Your task to perform on an android device: Add "duracell triple a" to the cart on walmart.com Image 0: 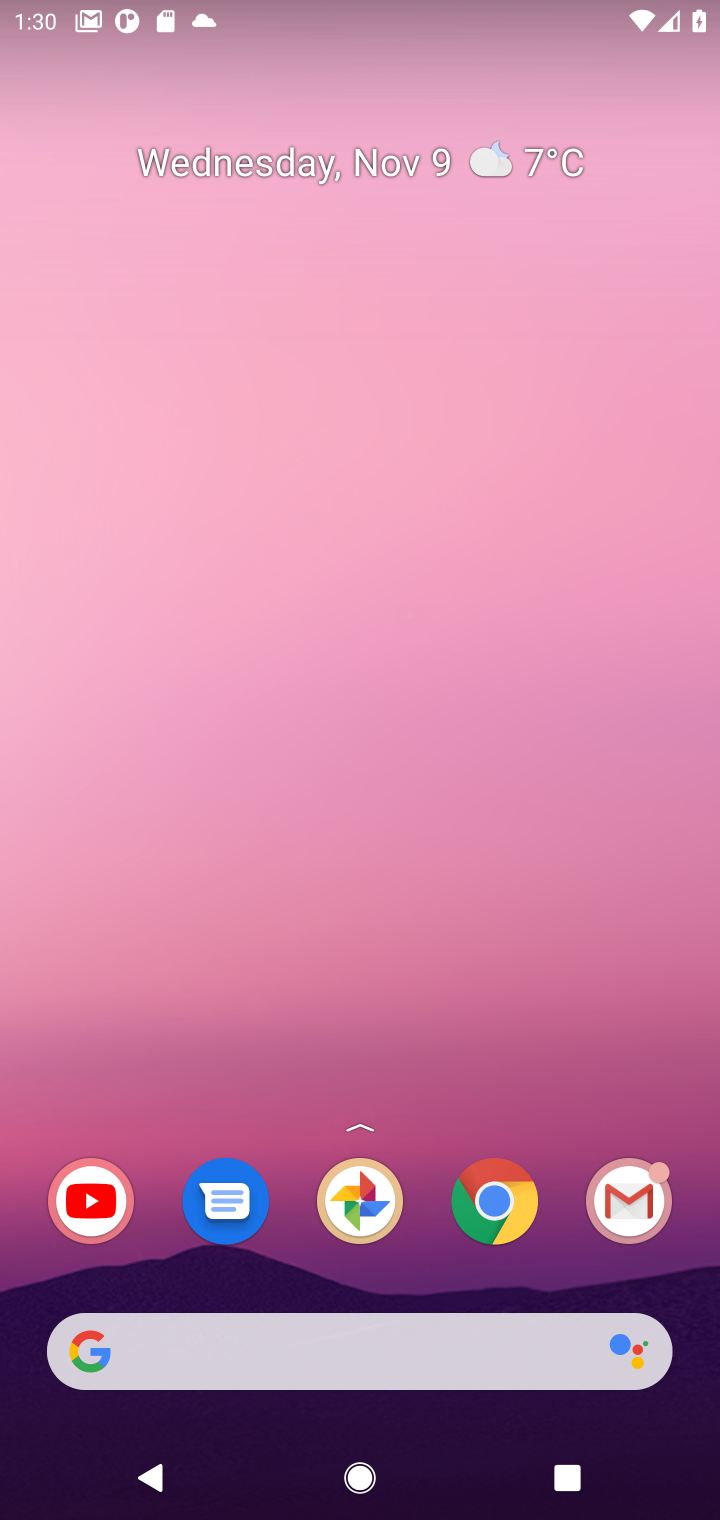
Step 0: click (337, 1362)
Your task to perform on an android device: Add "duracell triple a" to the cart on walmart.com Image 1: 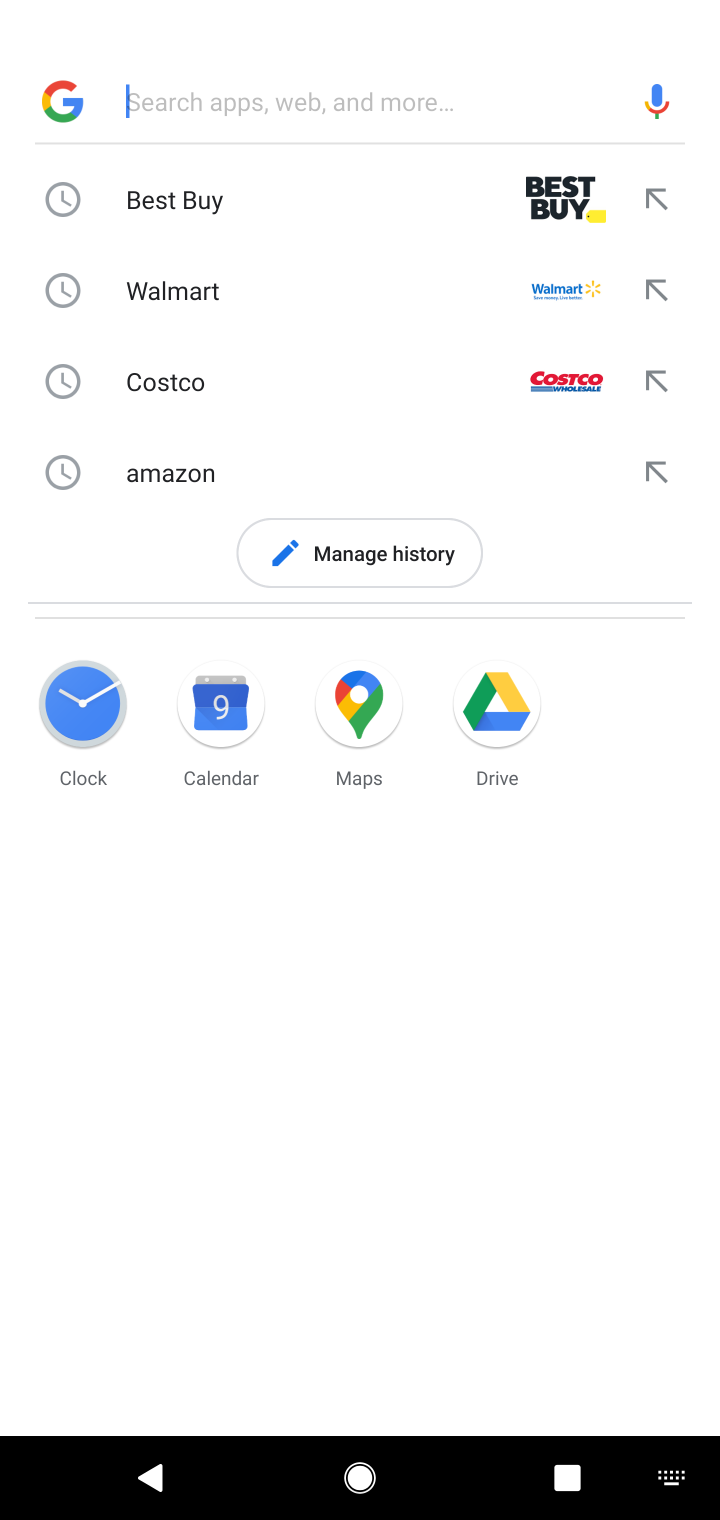
Step 1: type "walmart.com"
Your task to perform on an android device: Add "duracell triple a" to the cart on walmart.com Image 2: 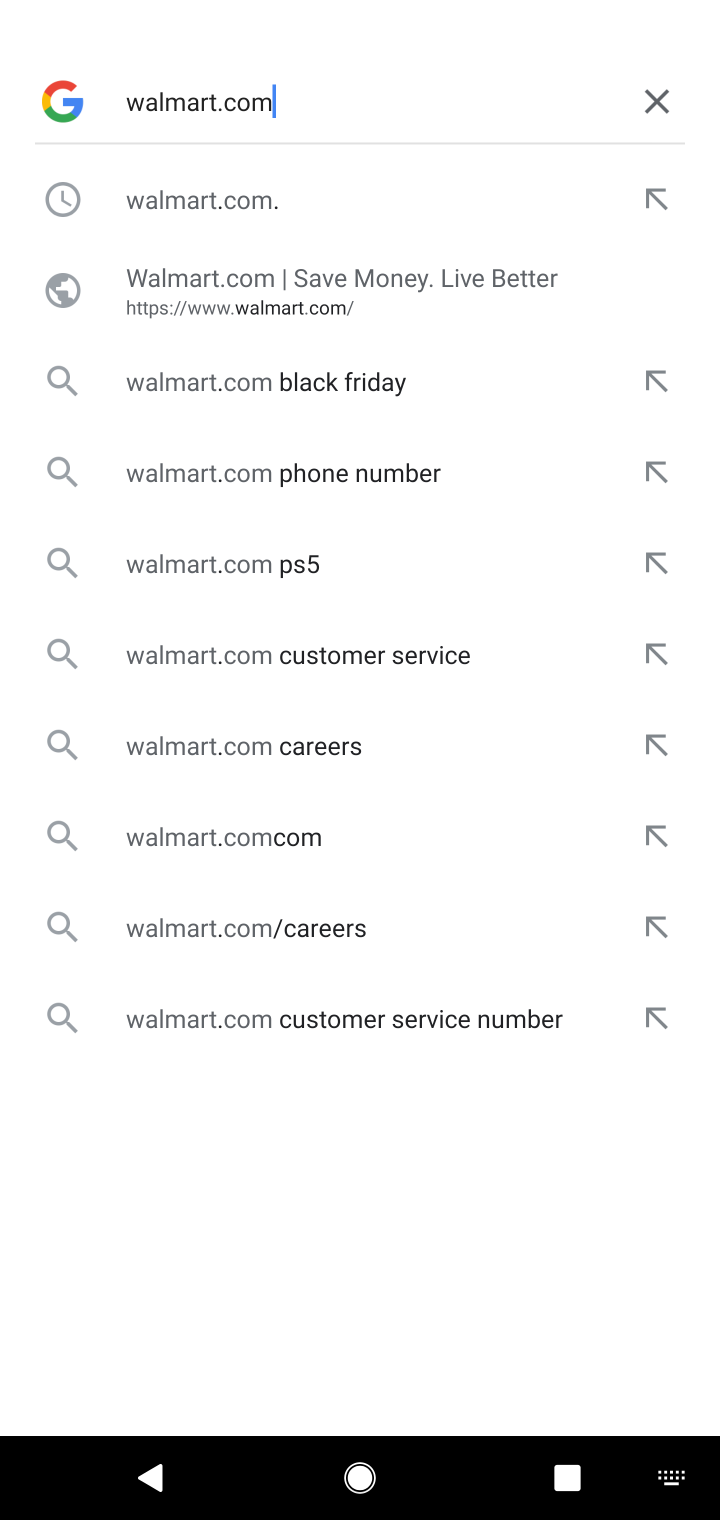
Step 2: click (226, 203)
Your task to perform on an android device: Add "duracell triple a" to the cart on walmart.com Image 3: 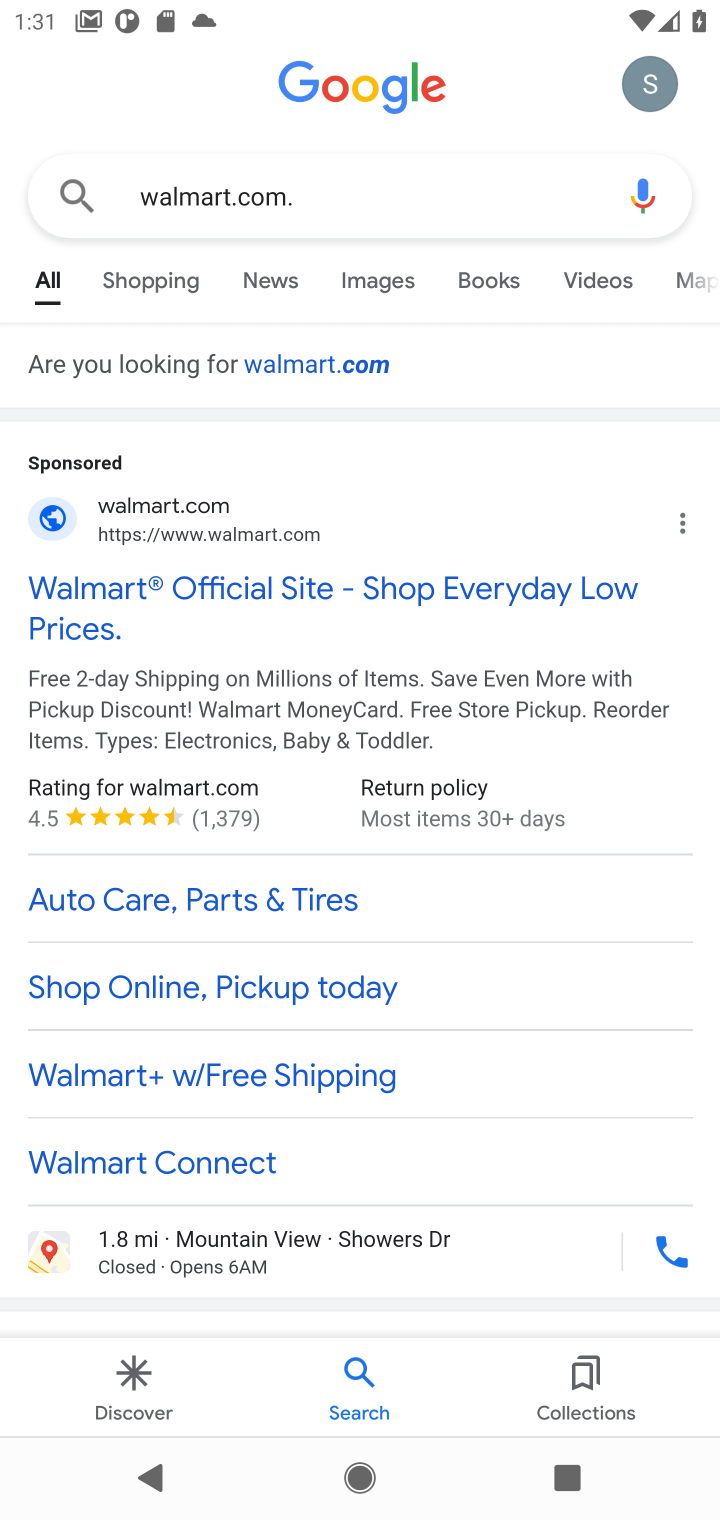
Step 3: drag from (447, 1031) to (411, 569)
Your task to perform on an android device: Add "duracell triple a" to the cart on walmart.com Image 4: 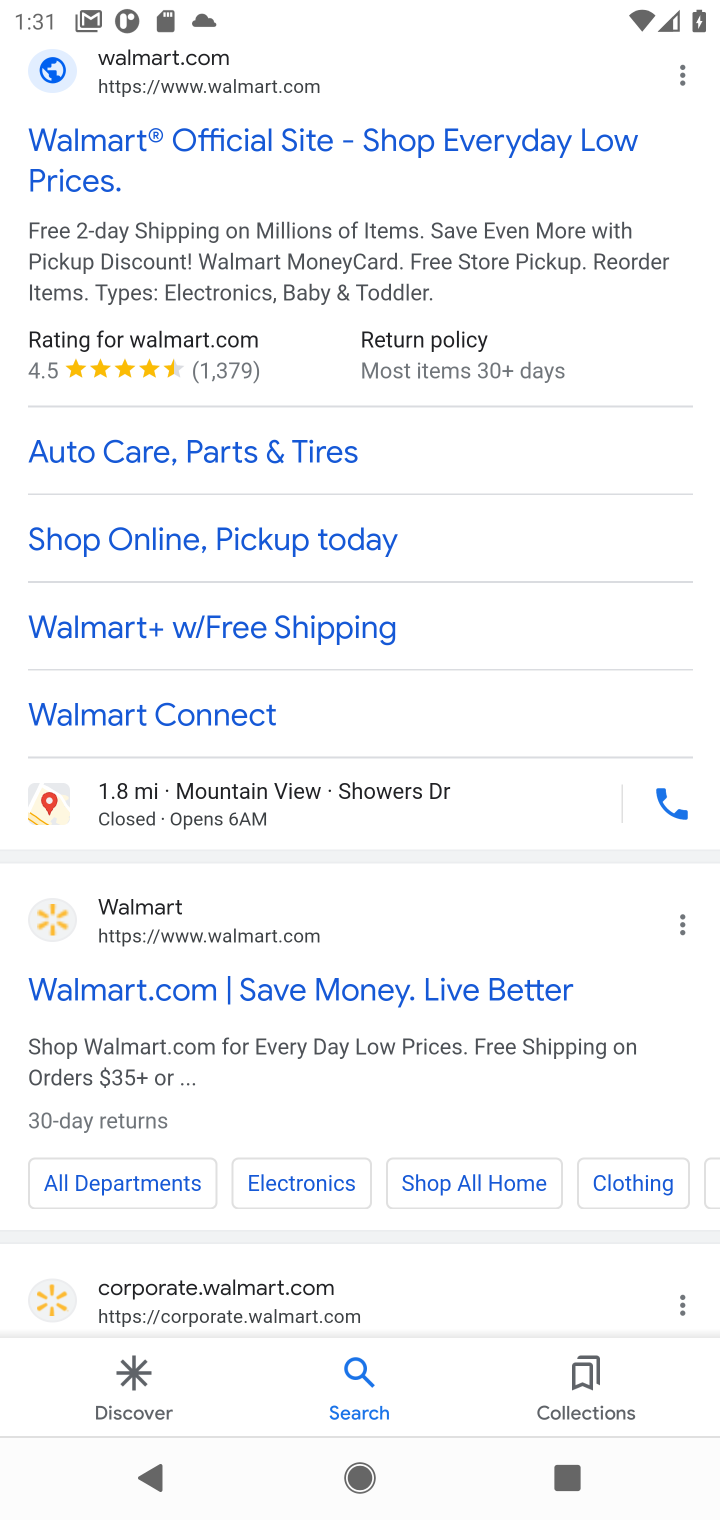
Step 4: click (143, 1228)
Your task to perform on an android device: Add "duracell triple a" to the cart on walmart.com Image 5: 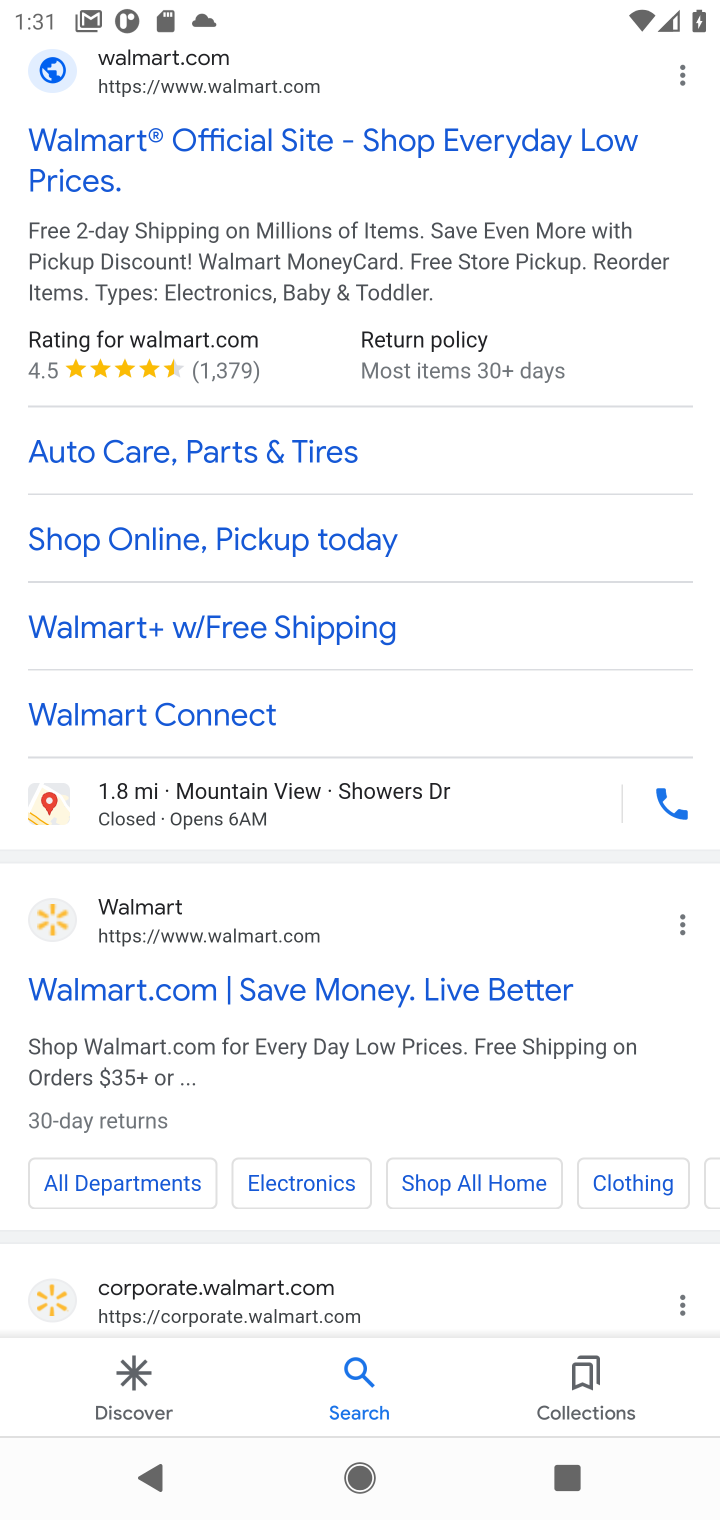
Step 5: click (144, 906)
Your task to perform on an android device: Add "duracell triple a" to the cart on walmart.com Image 6: 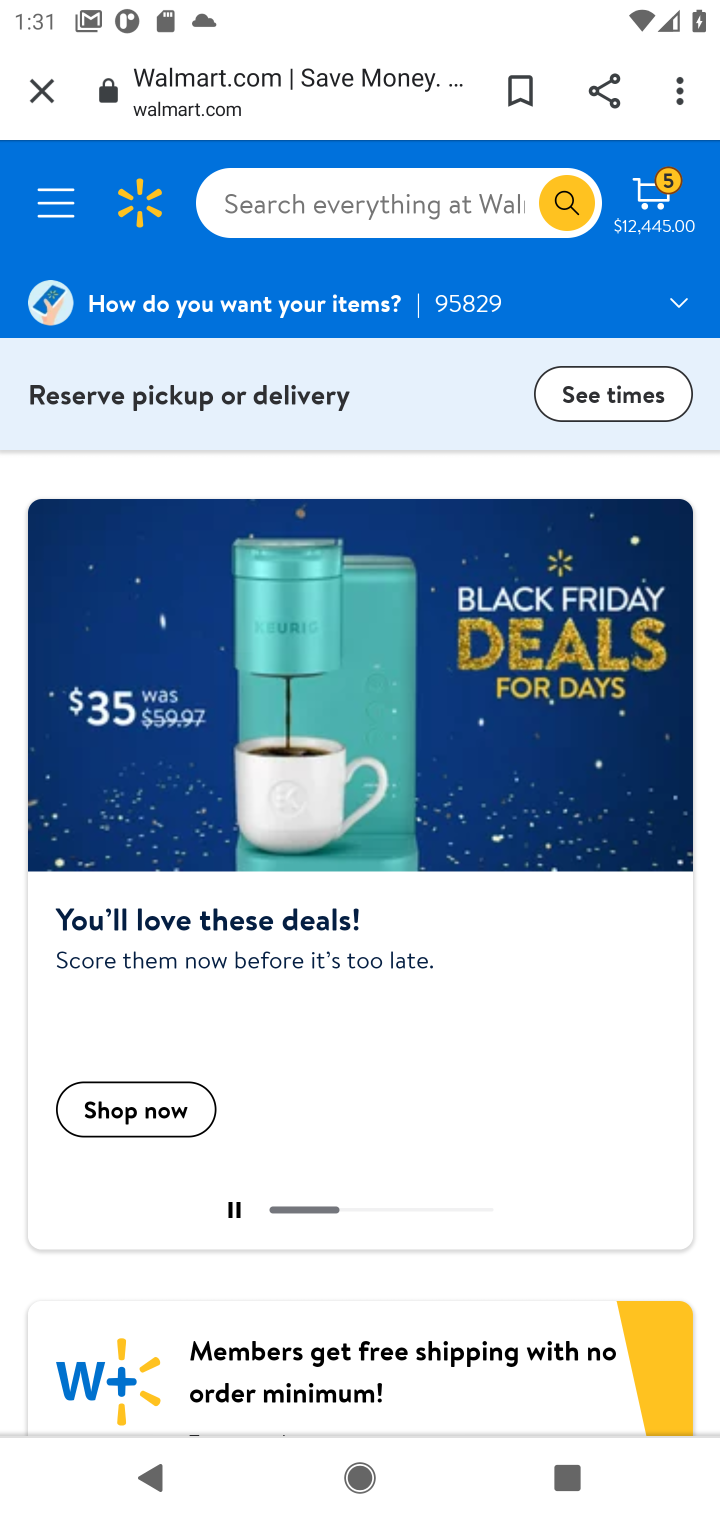
Step 6: drag from (304, 982) to (336, 449)
Your task to perform on an android device: Add "duracell triple a" to the cart on walmart.com Image 7: 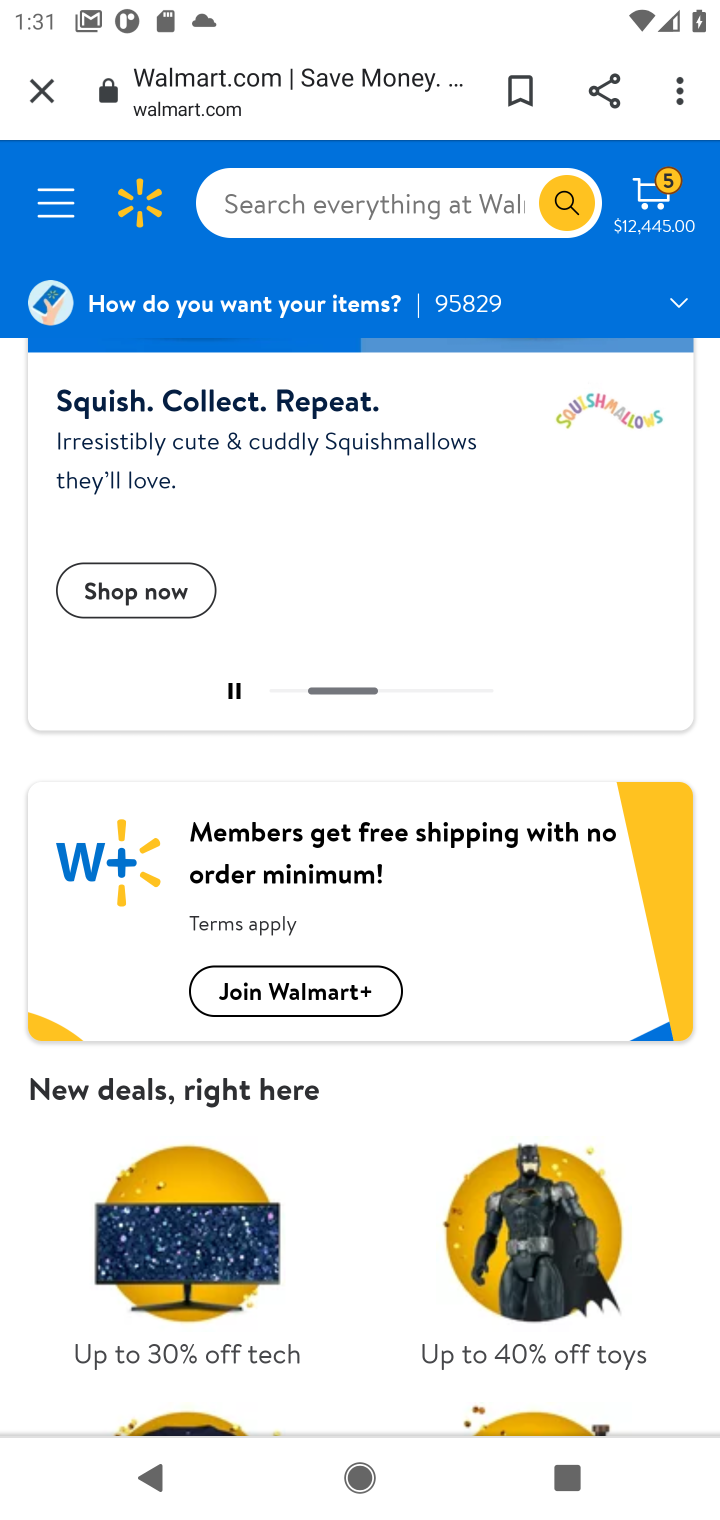
Step 7: drag from (450, 675) to (450, 396)
Your task to perform on an android device: Add "duracell triple a" to the cart on walmart.com Image 8: 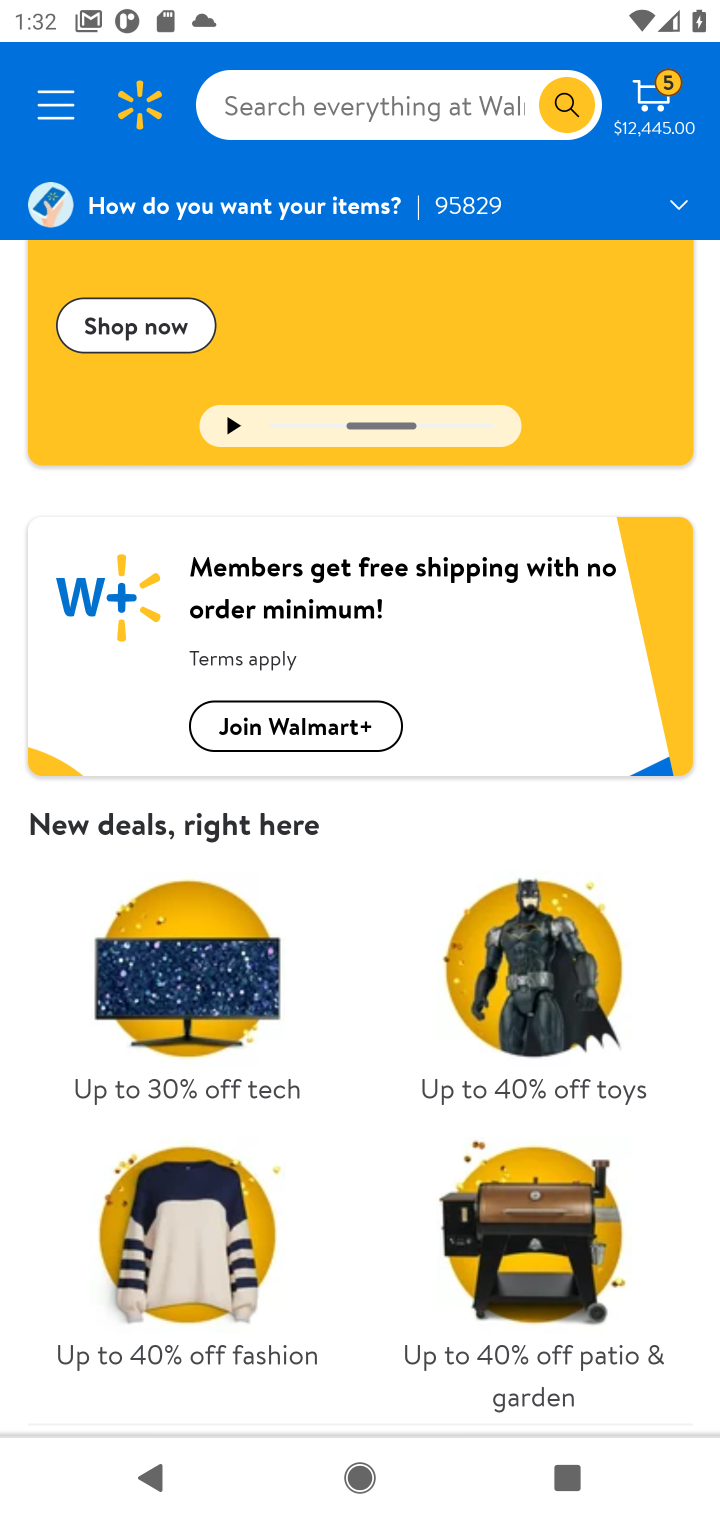
Step 8: click (352, 85)
Your task to perform on an android device: Add "duracell triple a" to the cart on walmart.com Image 9: 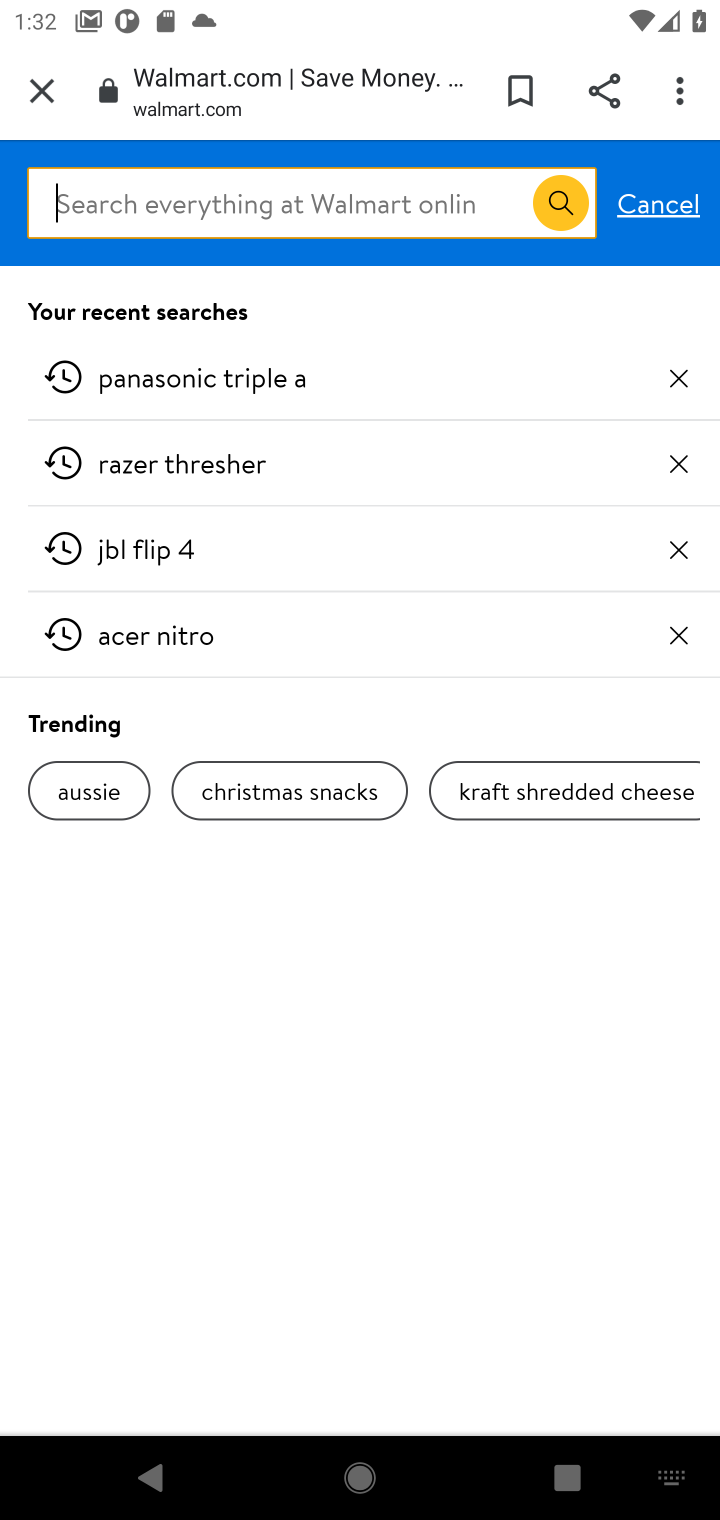
Step 9: type "duracell triple a"
Your task to perform on an android device: Add "duracell triple a" to the cart on walmart.com Image 10: 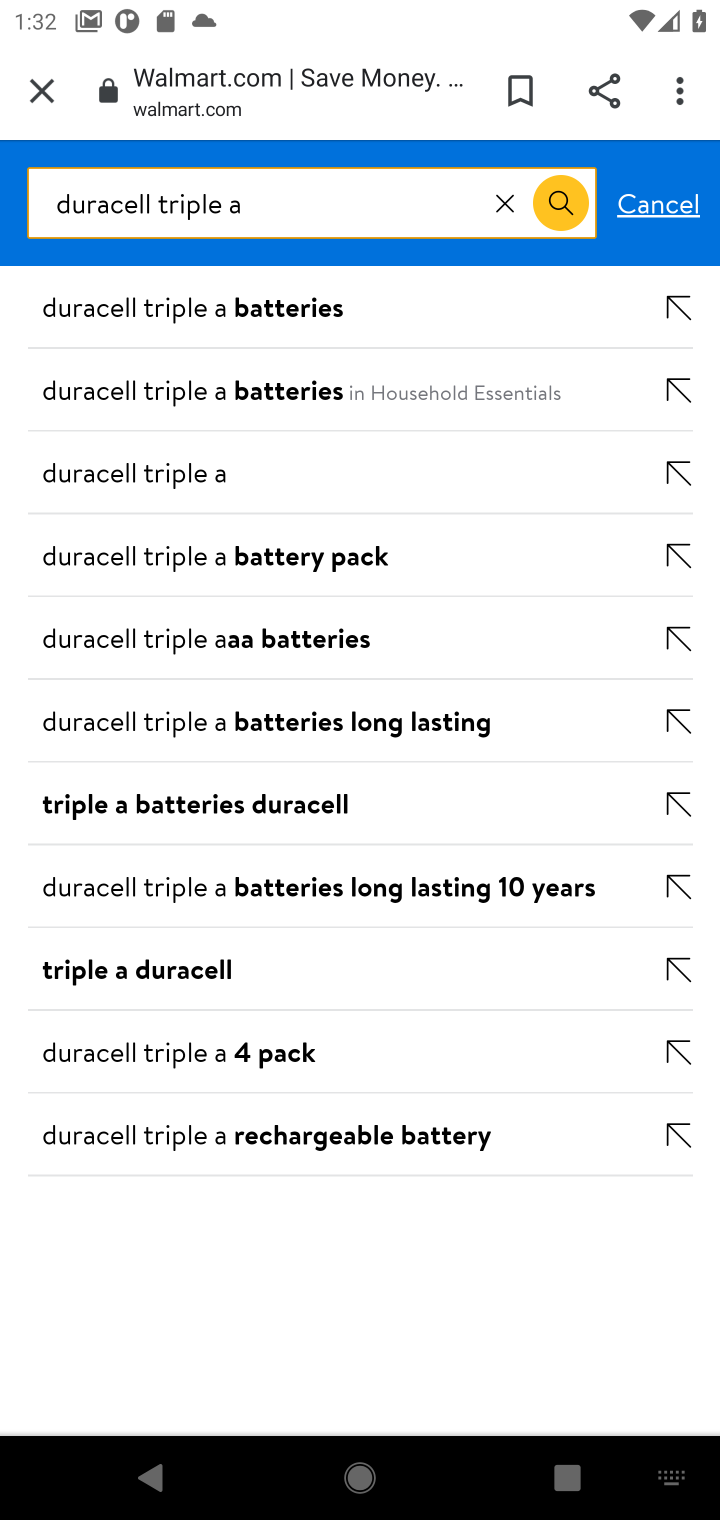
Step 10: click (179, 468)
Your task to perform on an android device: Add "duracell triple a" to the cart on walmart.com Image 11: 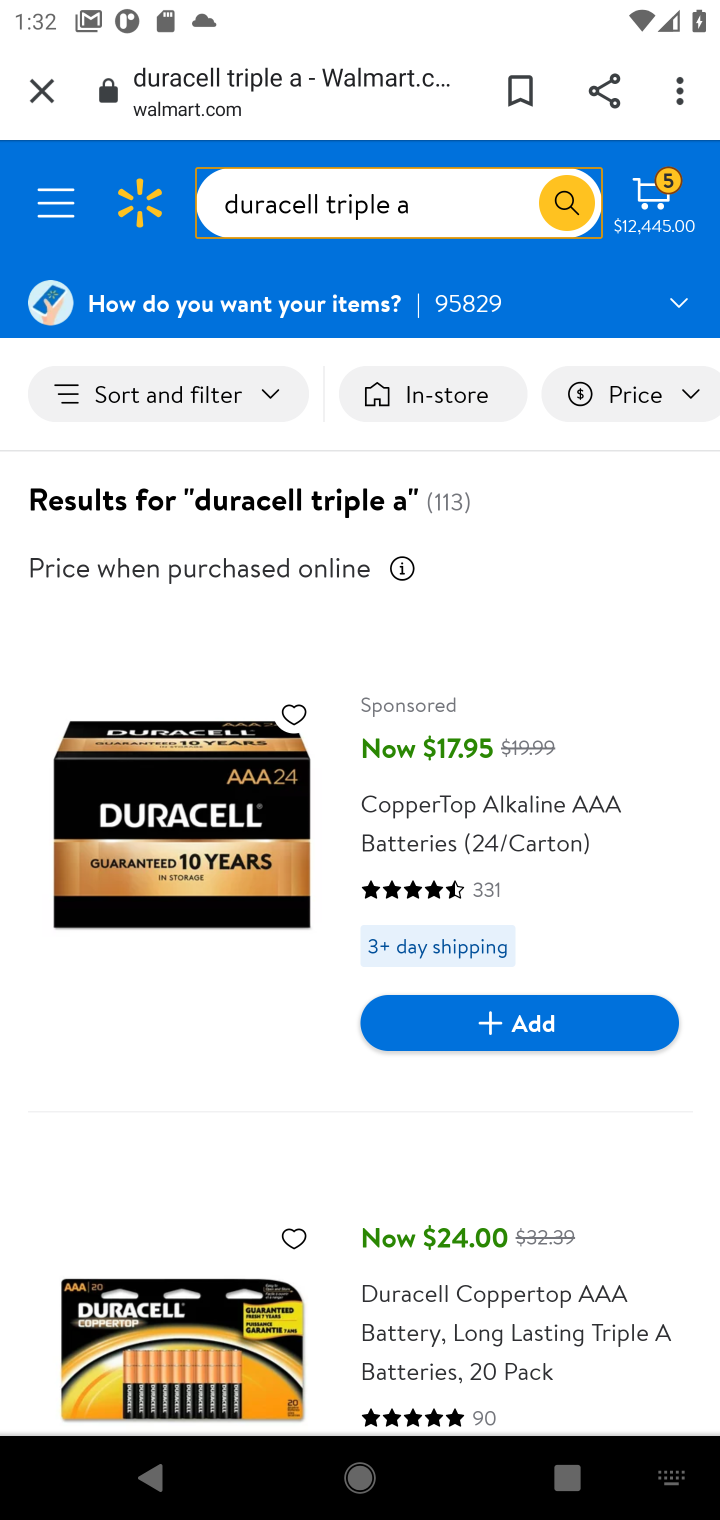
Step 11: click (497, 1031)
Your task to perform on an android device: Add "duracell triple a" to the cart on walmart.com Image 12: 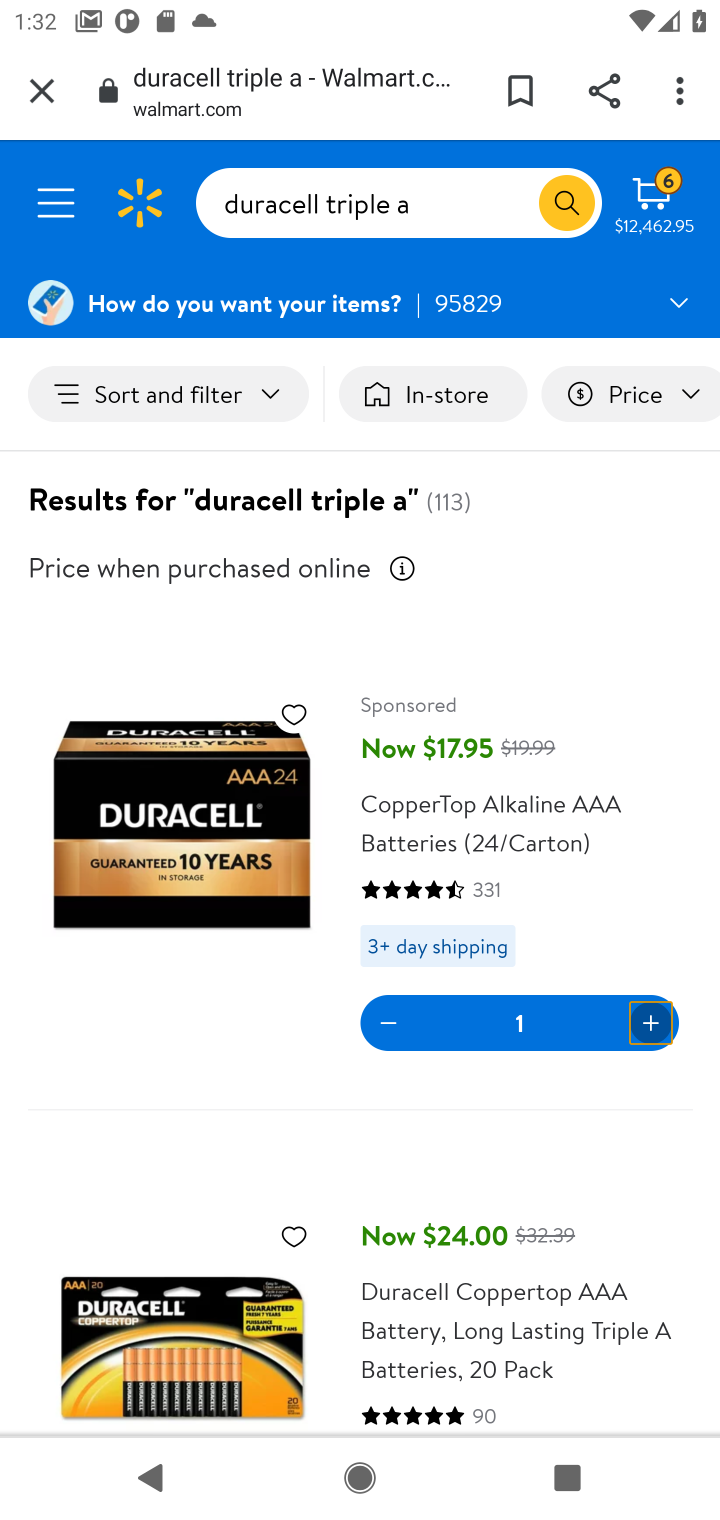
Step 12: task complete